Your task to perform on an android device: Open Chrome and go to settings Image 0: 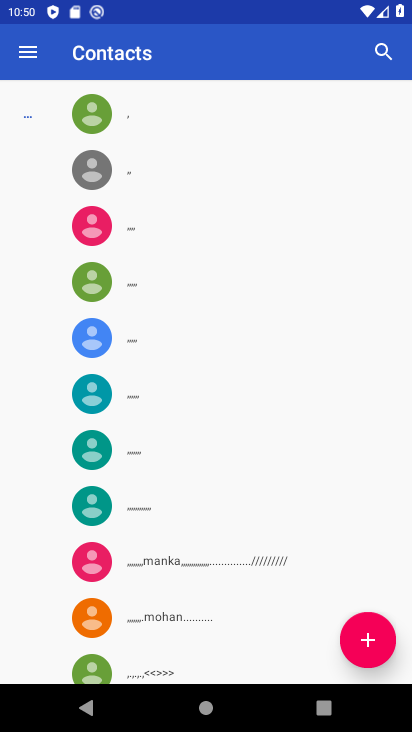
Step 0: press home button
Your task to perform on an android device: Open Chrome and go to settings Image 1: 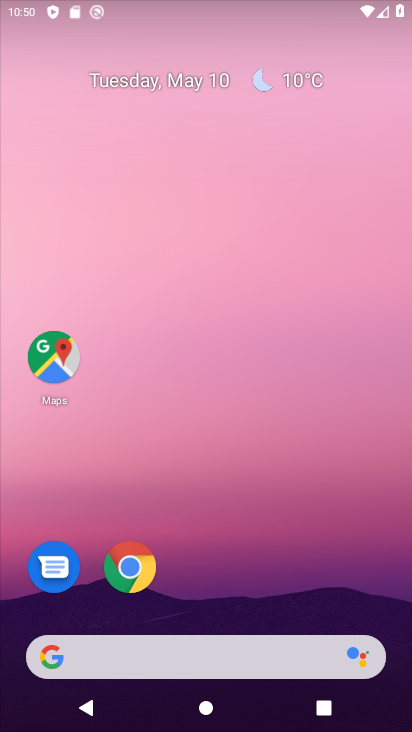
Step 1: drag from (324, 663) to (325, 183)
Your task to perform on an android device: Open Chrome and go to settings Image 2: 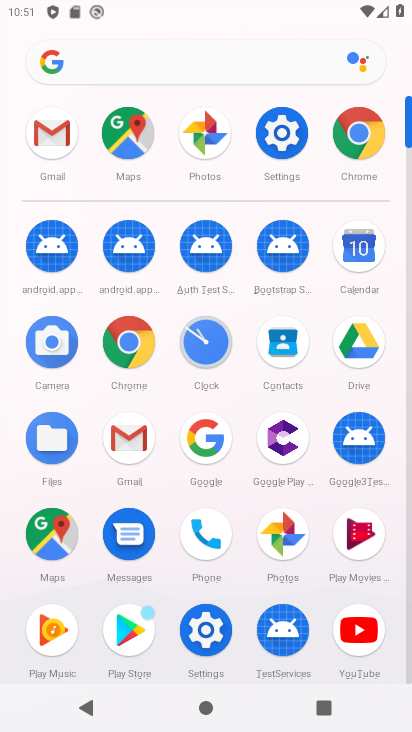
Step 2: click (142, 341)
Your task to perform on an android device: Open Chrome and go to settings Image 3: 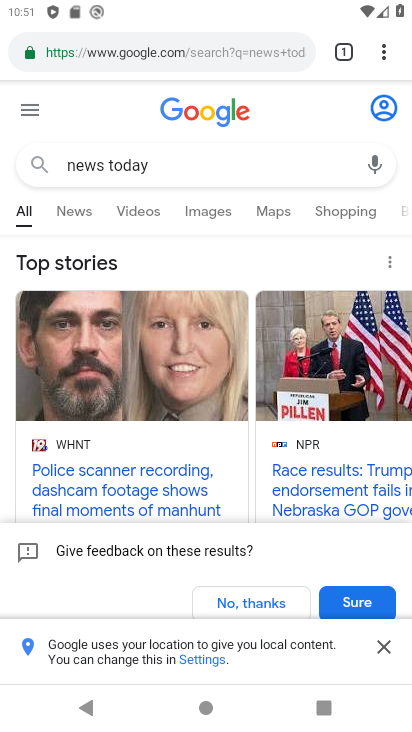
Step 3: click (381, 51)
Your task to perform on an android device: Open Chrome and go to settings Image 4: 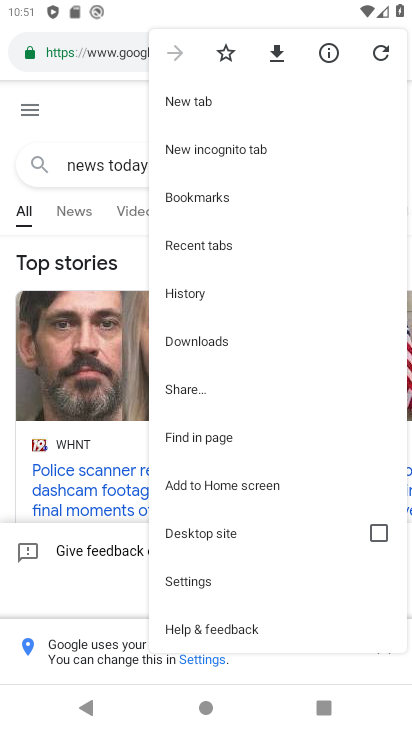
Step 4: click (260, 572)
Your task to perform on an android device: Open Chrome and go to settings Image 5: 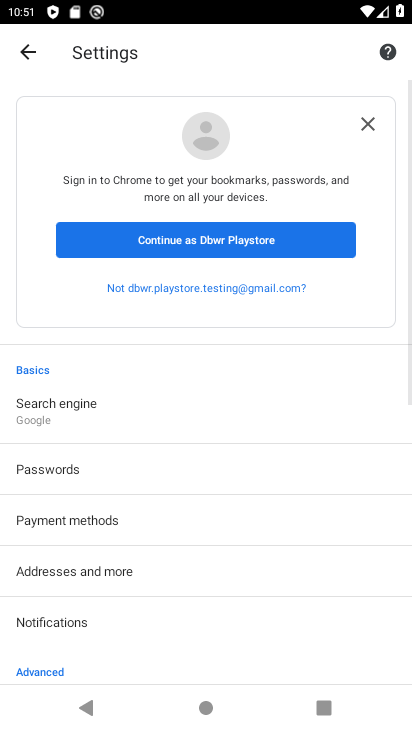
Step 5: drag from (262, 600) to (257, 144)
Your task to perform on an android device: Open Chrome and go to settings Image 6: 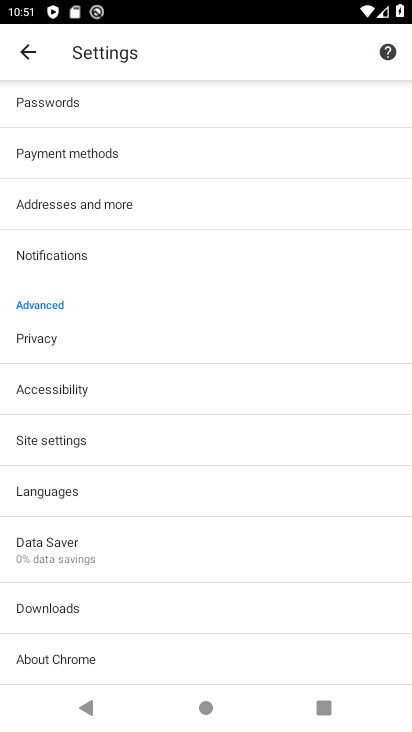
Step 6: press back button
Your task to perform on an android device: Open Chrome and go to settings Image 7: 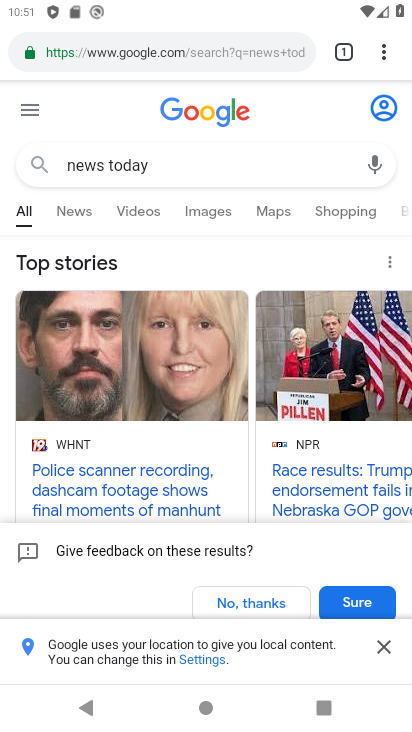
Step 7: click (383, 58)
Your task to perform on an android device: Open Chrome and go to settings Image 8: 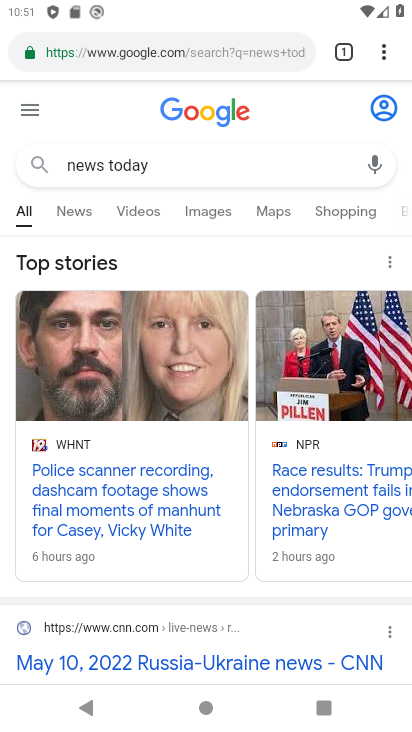
Step 8: task complete